Your task to perform on an android device: toggle data saver in the chrome app Image 0: 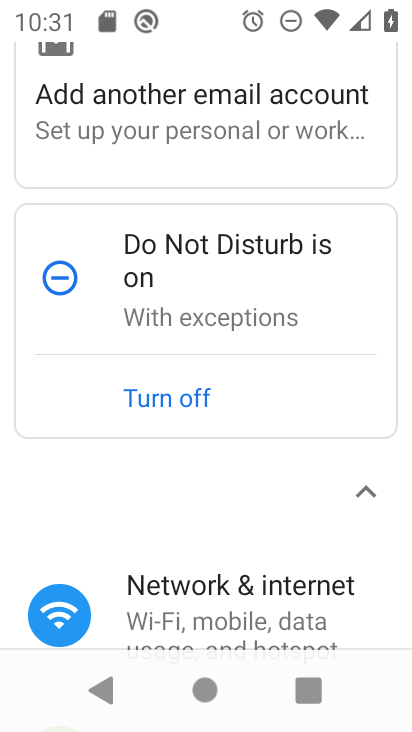
Step 0: press home button
Your task to perform on an android device: toggle data saver in the chrome app Image 1: 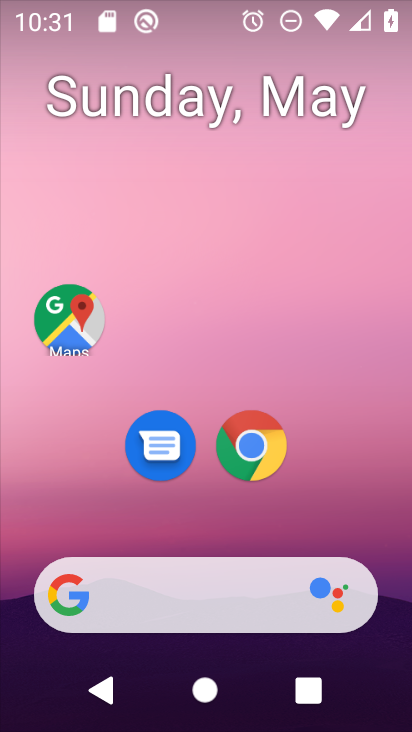
Step 1: drag from (166, 512) to (135, 74)
Your task to perform on an android device: toggle data saver in the chrome app Image 2: 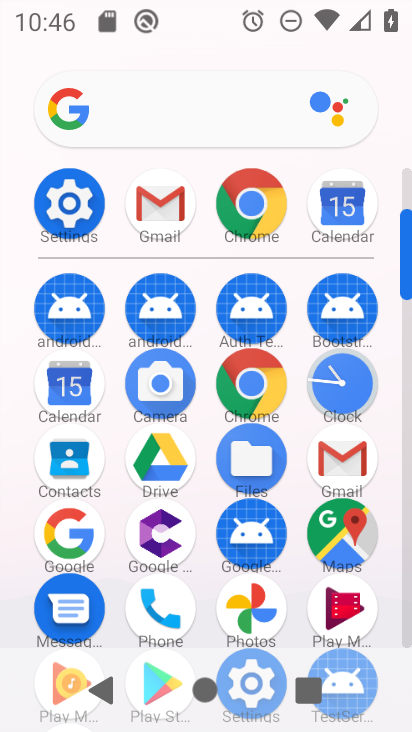
Step 2: click (255, 203)
Your task to perform on an android device: toggle data saver in the chrome app Image 3: 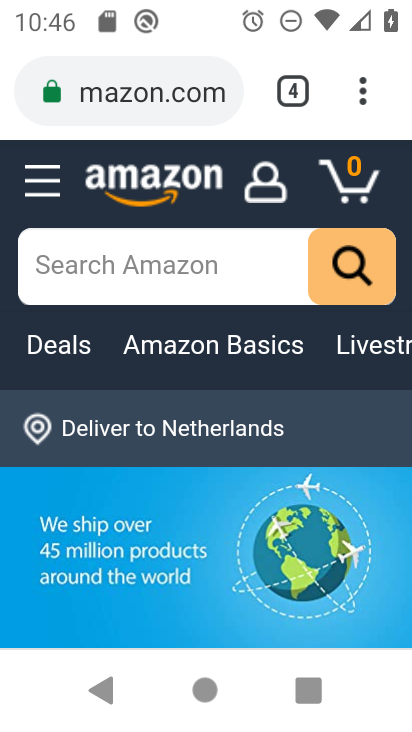
Step 3: click (377, 108)
Your task to perform on an android device: toggle data saver in the chrome app Image 4: 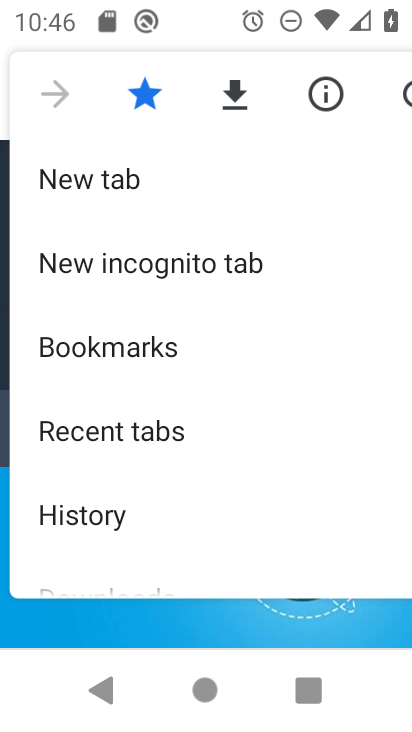
Step 4: drag from (215, 448) to (209, 84)
Your task to perform on an android device: toggle data saver in the chrome app Image 5: 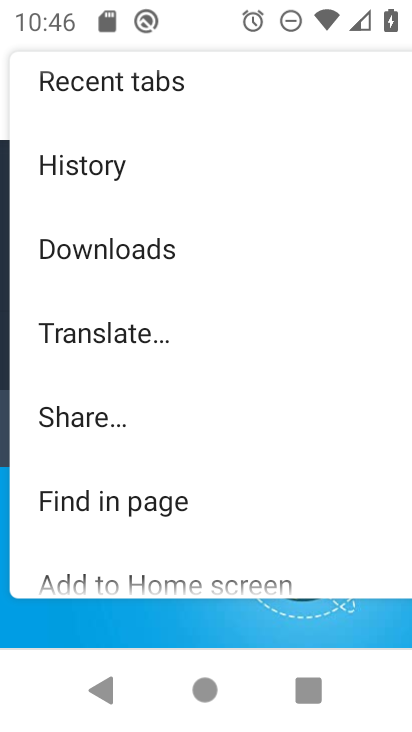
Step 5: drag from (149, 479) to (136, 90)
Your task to perform on an android device: toggle data saver in the chrome app Image 6: 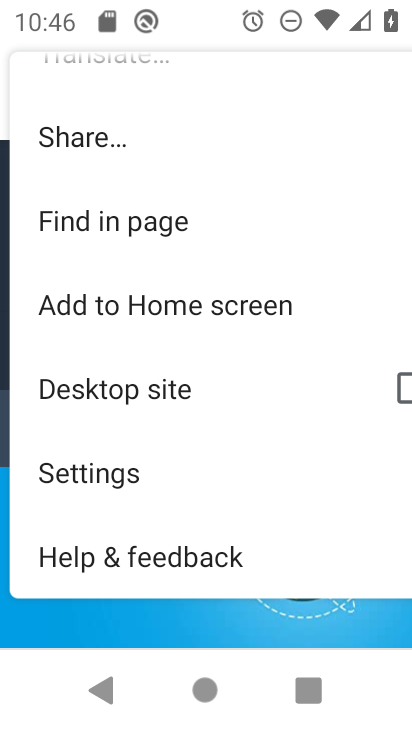
Step 6: click (131, 467)
Your task to perform on an android device: toggle data saver in the chrome app Image 7: 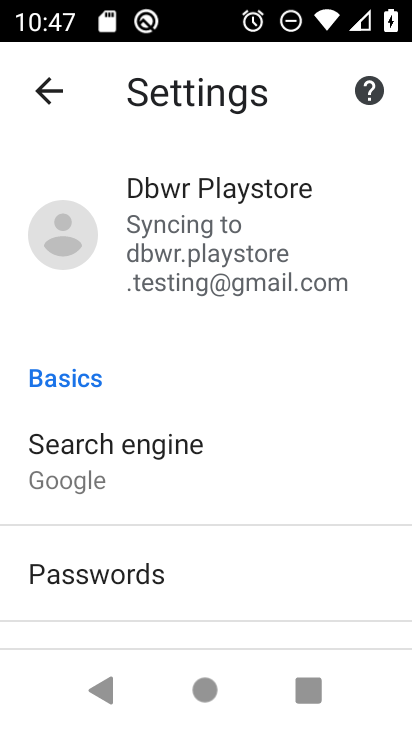
Step 7: drag from (151, 525) to (162, 242)
Your task to perform on an android device: toggle data saver in the chrome app Image 8: 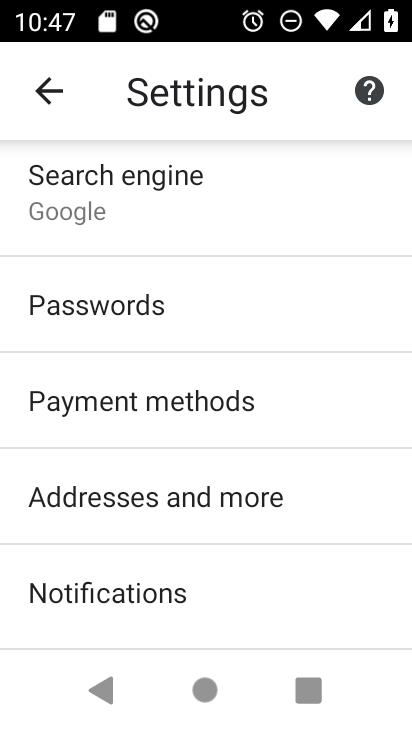
Step 8: drag from (164, 502) to (199, 282)
Your task to perform on an android device: toggle data saver in the chrome app Image 9: 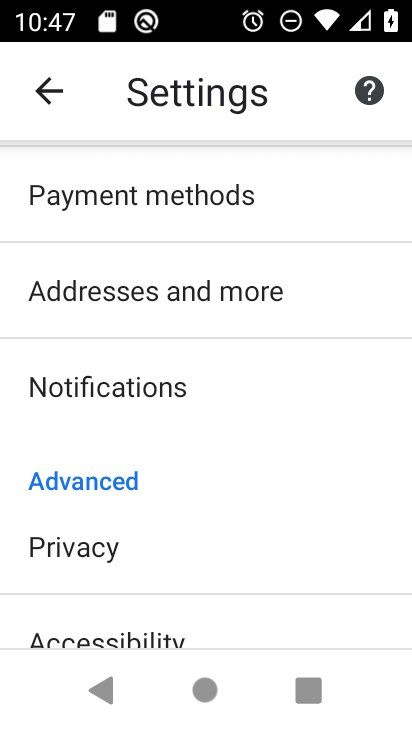
Step 9: drag from (176, 511) to (176, 299)
Your task to perform on an android device: toggle data saver in the chrome app Image 10: 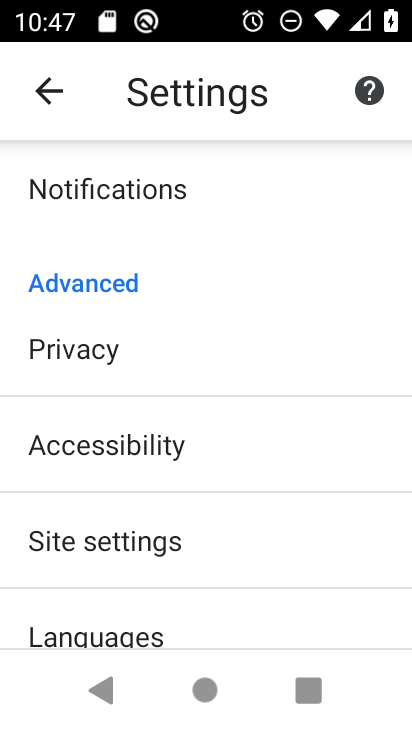
Step 10: drag from (180, 574) to (168, 416)
Your task to perform on an android device: toggle data saver in the chrome app Image 11: 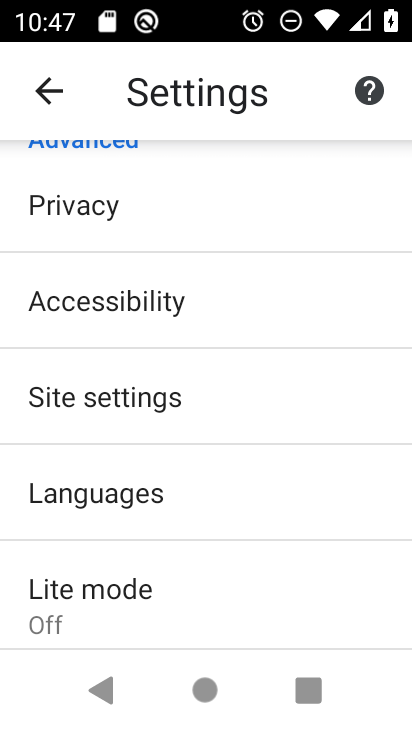
Step 11: click (167, 600)
Your task to perform on an android device: toggle data saver in the chrome app Image 12: 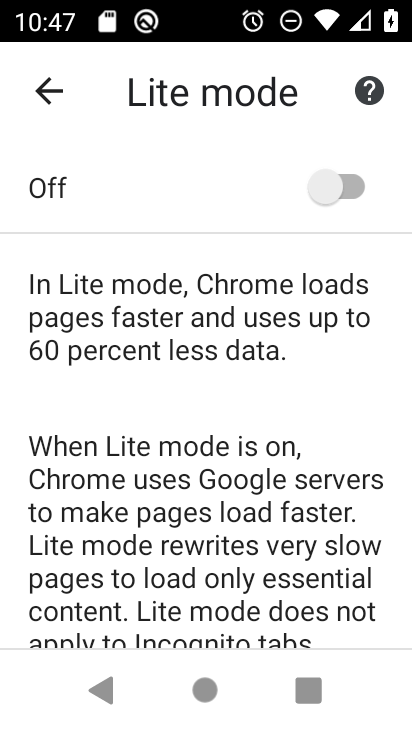
Step 12: click (354, 184)
Your task to perform on an android device: toggle data saver in the chrome app Image 13: 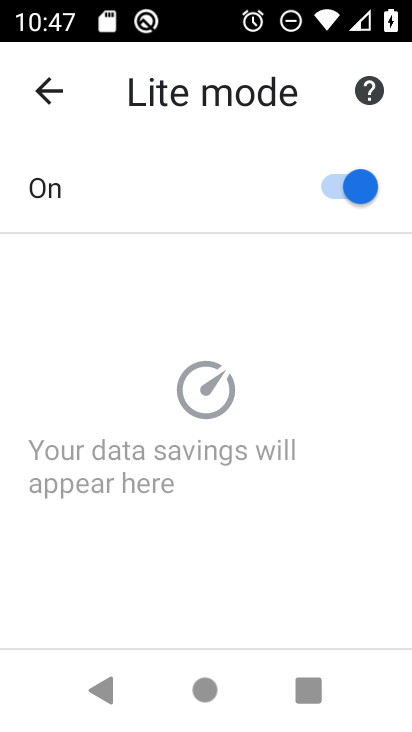
Step 13: task complete